Your task to perform on an android device: Go to internet settings Image 0: 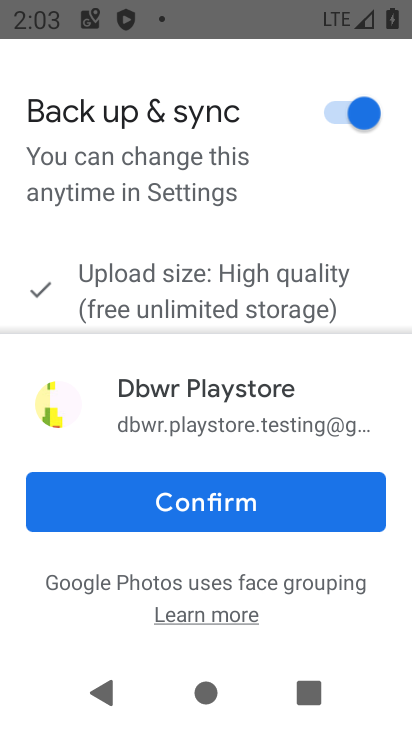
Step 0: press home button
Your task to perform on an android device: Go to internet settings Image 1: 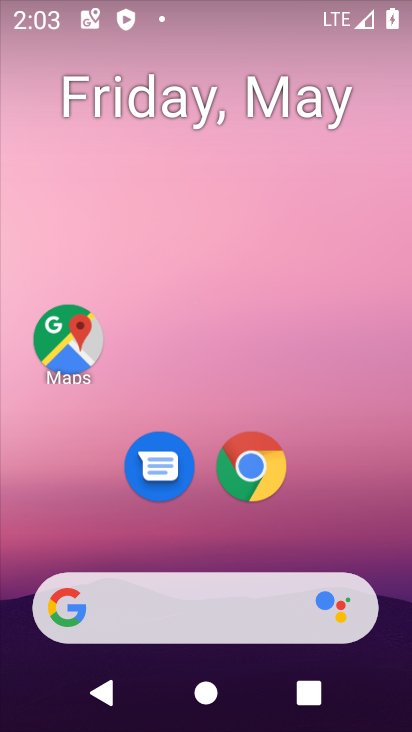
Step 1: drag from (320, 524) to (345, 97)
Your task to perform on an android device: Go to internet settings Image 2: 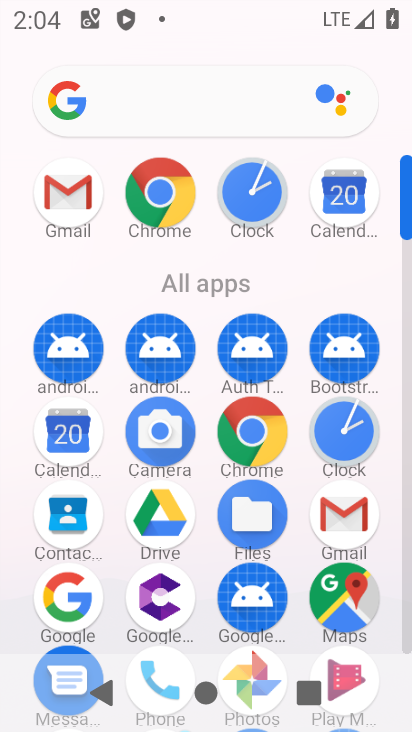
Step 2: drag from (309, 286) to (342, 8)
Your task to perform on an android device: Go to internet settings Image 3: 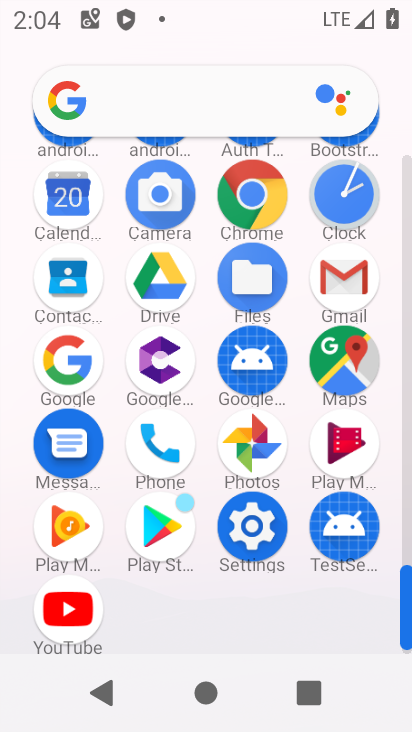
Step 3: click (247, 623)
Your task to perform on an android device: Go to internet settings Image 4: 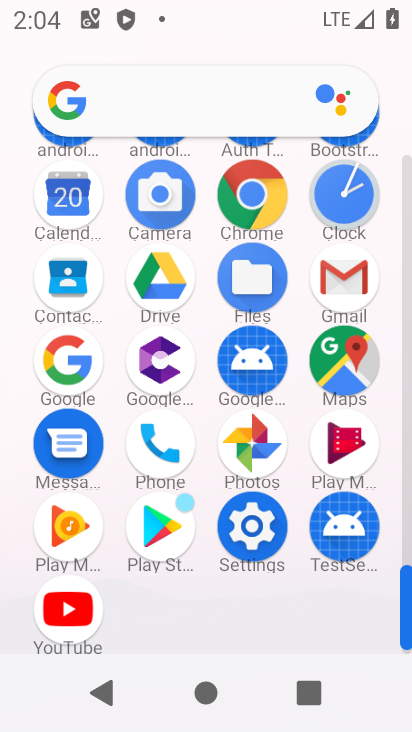
Step 4: click (251, 545)
Your task to perform on an android device: Go to internet settings Image 5: 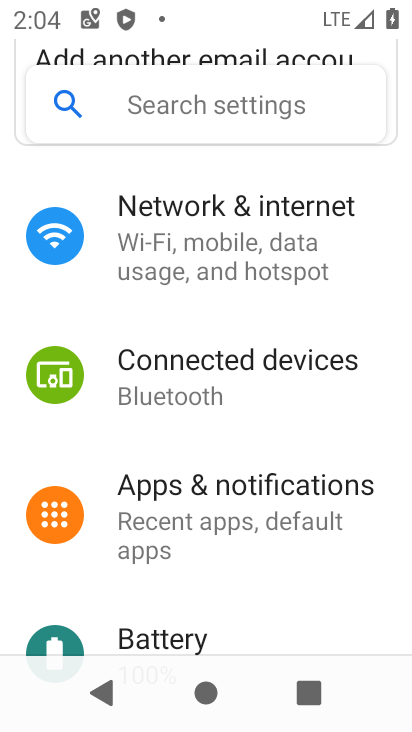
Step 5: click (239, 236)
Your task to perform on an android device: Go to internet settings Image 6: 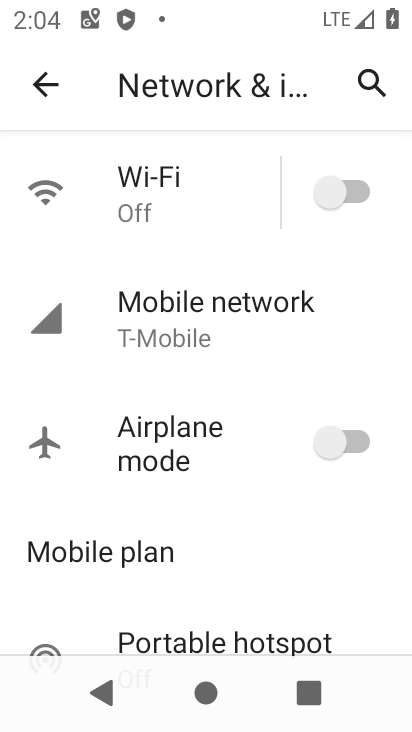
Step 6: task complete